Your task to perform on an android device: Go to display settings Image 0: 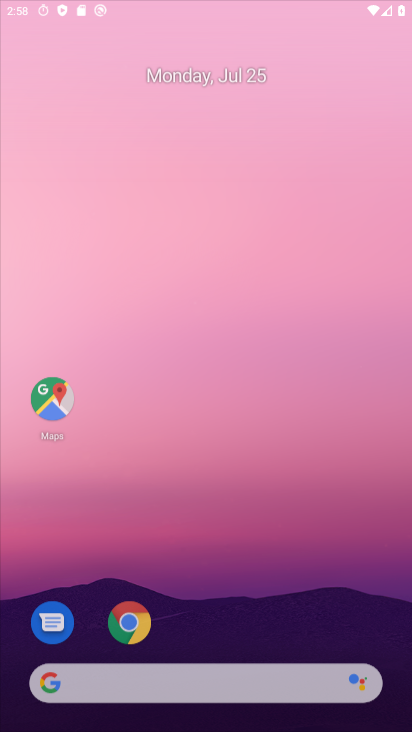
Step 0: click (256, 330)
Your task to perform on an android device: Go to display settings Image 1: 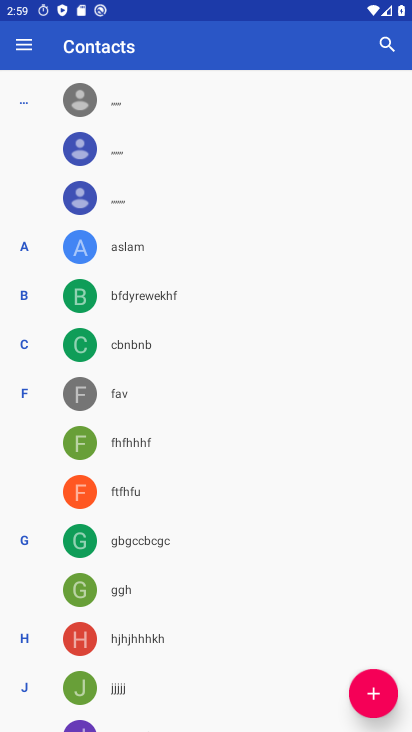
Step 1: press back button
Your task to perform on an android device: Go to display settings Image 2: 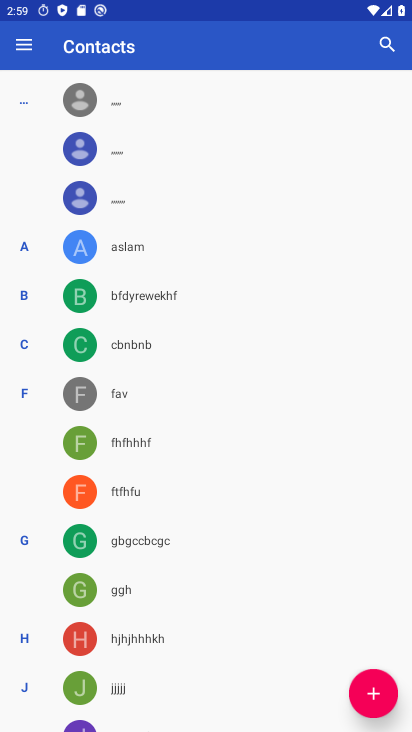
Step 2: press back button
Your task to perform on an android device: Go to display settings Image 3: 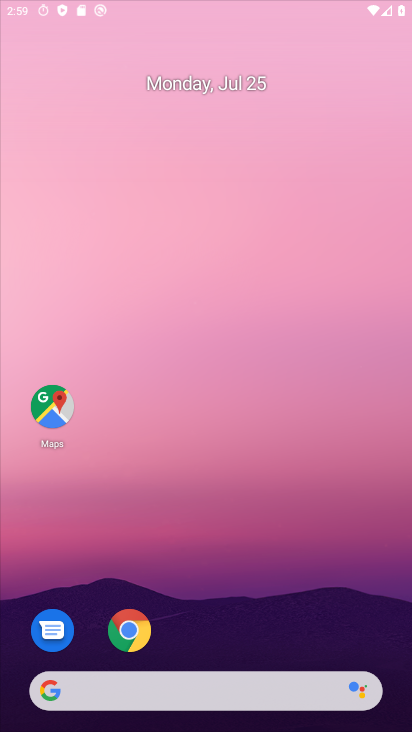
Step 3: press back button
Your task to perform on an android device: Go to display settings Image 4: 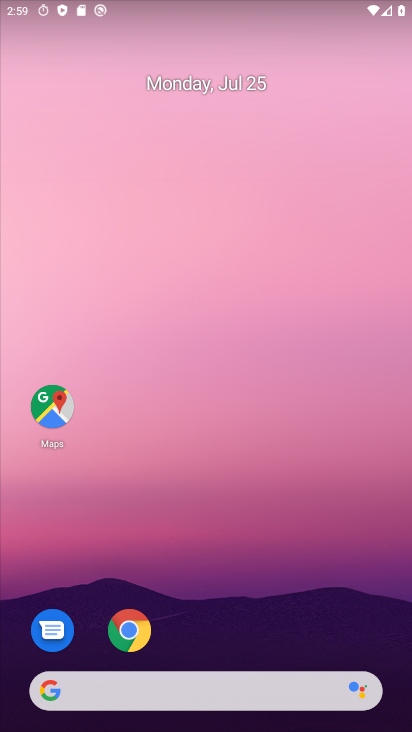
Step 4: drag from (246, 636) to (171, 103)
Your task to perform on an android device: Go to display settings Image 5: 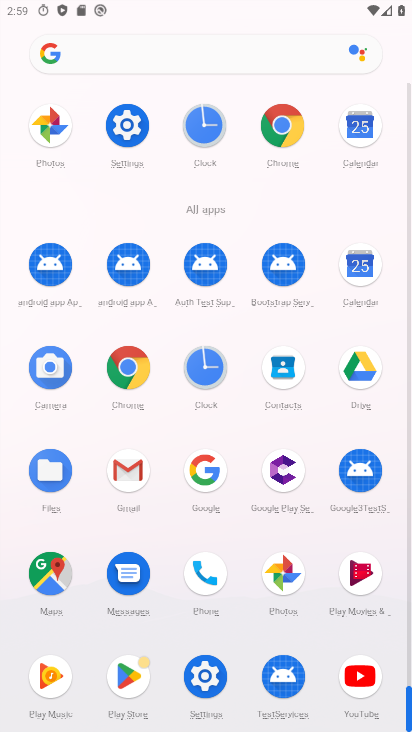
Step 5: click (203, 670)
Your task to perform on an android device: Go to display settings Image 6: 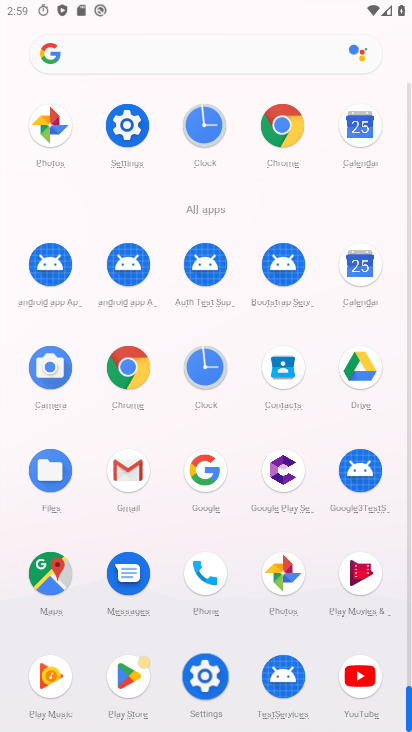
Step 6: click (191, 665)
Your task to perform on an android device: Go to display settings Image 7: 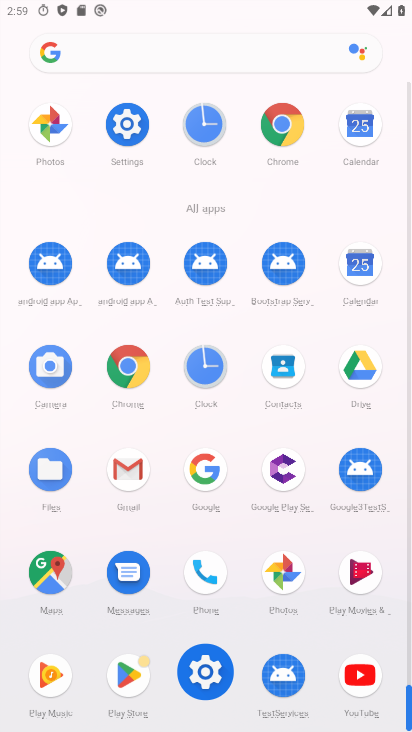
Step 7: click (190, 671)
Your task to perform on an android device: Go to display settings Image 8: 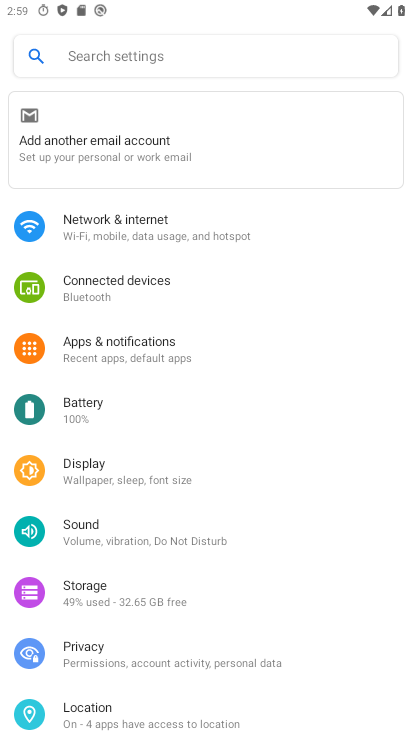
Step 8: click (82, 470)
Your task to perform on an android device: Go to display settings Image 9: 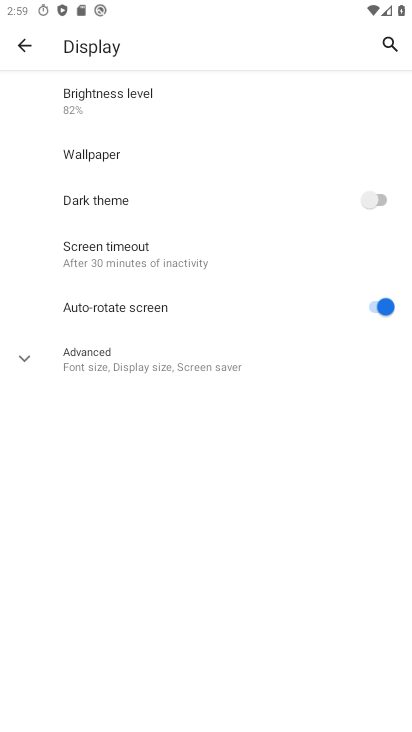
Step 9: task complete